Your task to perform on an android device: turn off smart reply in the gmail app Image 0: 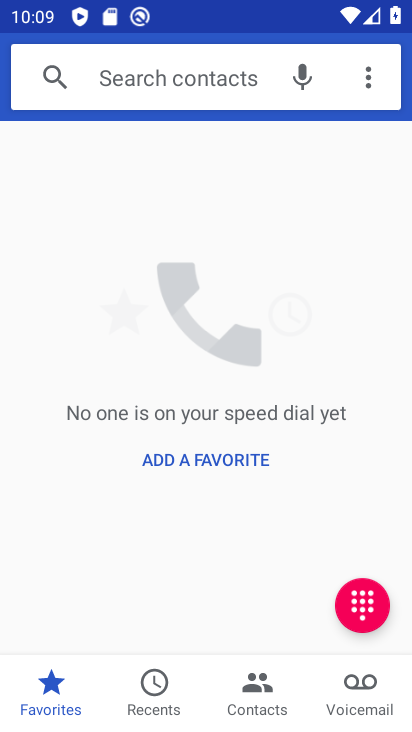
Step 0: press home button
Your task to perform on an android device: turn off smart reply in the gmail app Image 1: 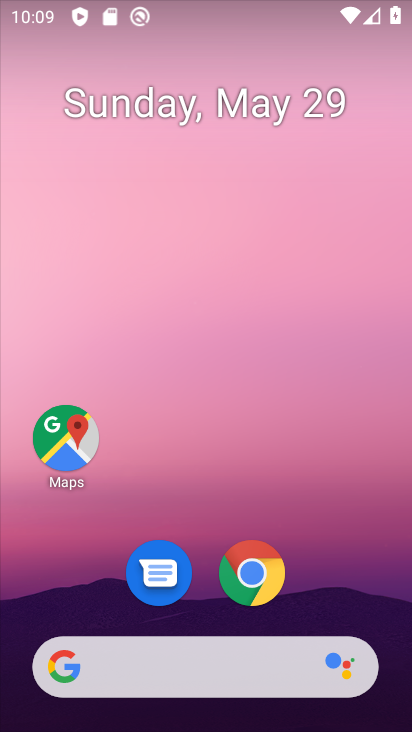
Step 1: drag from (53, 617) to (198, 166)
Your task to perform on an android device: turn off smart reply in the gmail app Image 2: 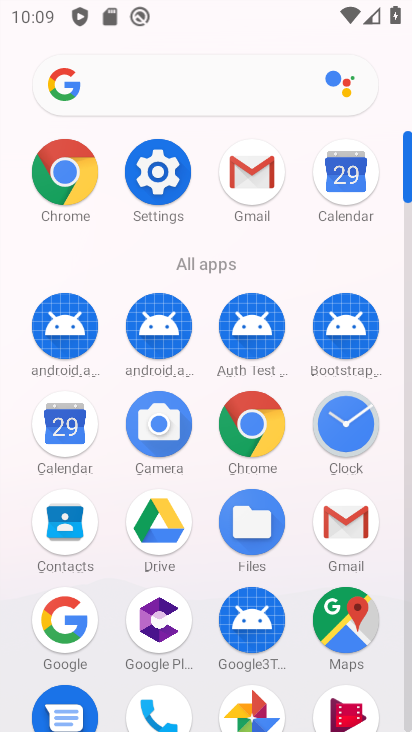
Step 2: drag from (169, 624) to (230, 361)
Your task to perform on an android device: turn off smart reply in the gmail app Image 3: 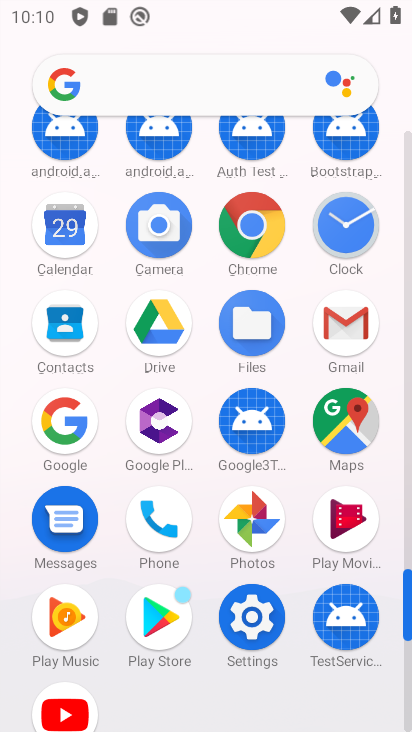
Step 3: click (326, 326)
Your task to perform on an android device: turn off smart reply in the gmail app Image 4: 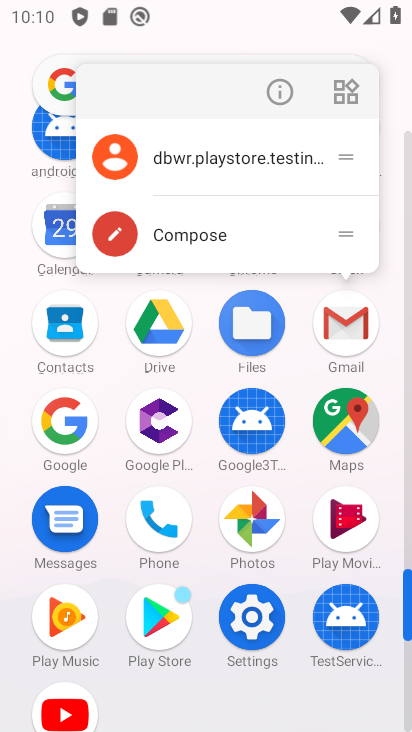
Step 4: click (353, 332)
Your task to perform on an android device: turn off smart reply in the gmail app Image 5: 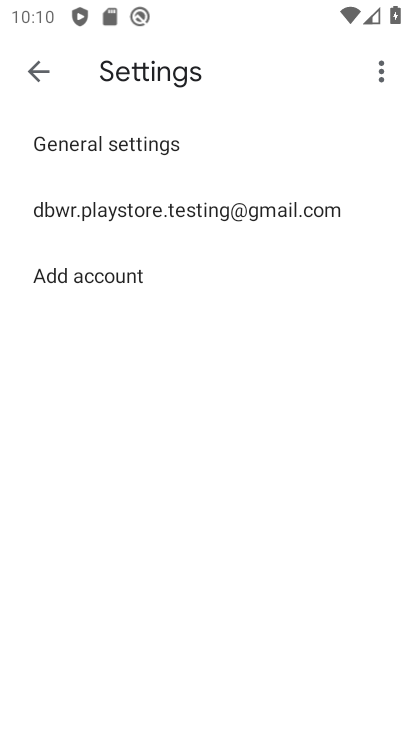
Step 5: click (247, 221)
Your task to perform on an android device: turn off smart reply in the gmail app Image 6: 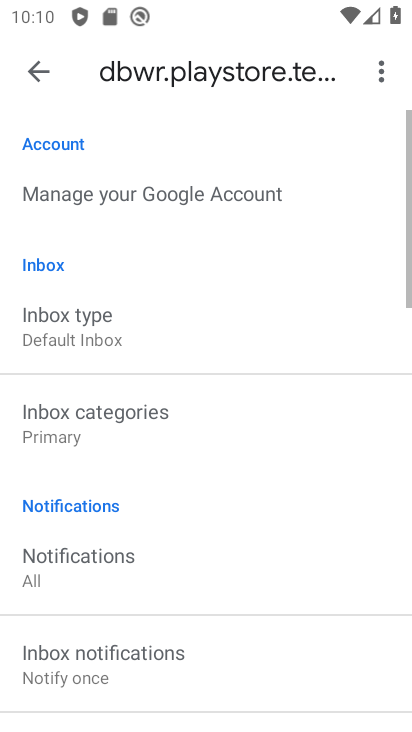
Step 6: drag from (179, 676) to (285, 146)
Your task to perform on an android device: turn off smart reply in the gmail app Image 7: 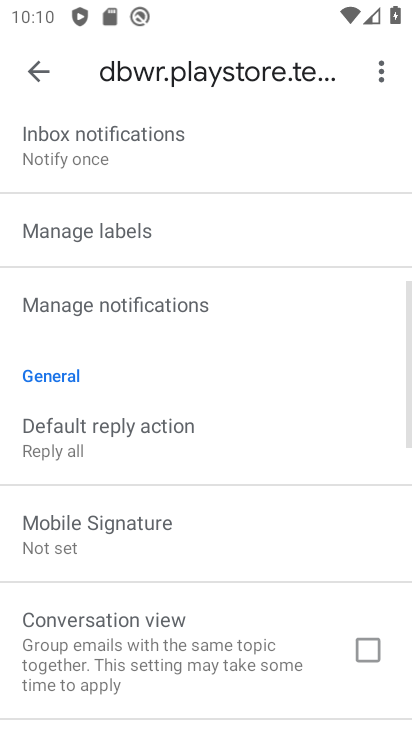
Step 7: drag from (139, 565) to (297, 90)
Your task to perform on an android device: turn off smart reply in the gmail app Image 8: 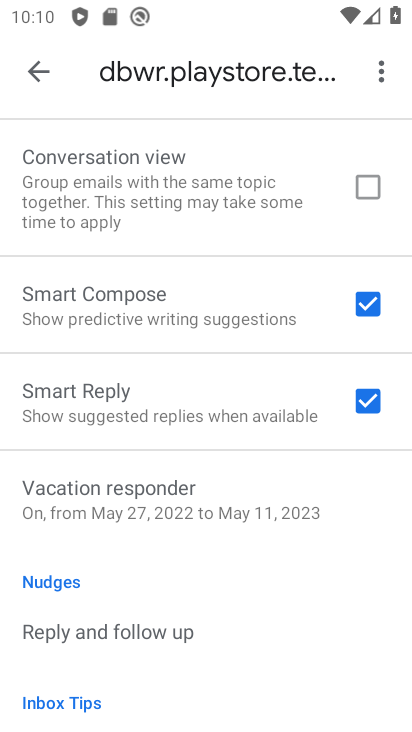
Step 8: click (375, 407)
Your task to perform on an android device: turn off smart reply in the gmail app Image 9: 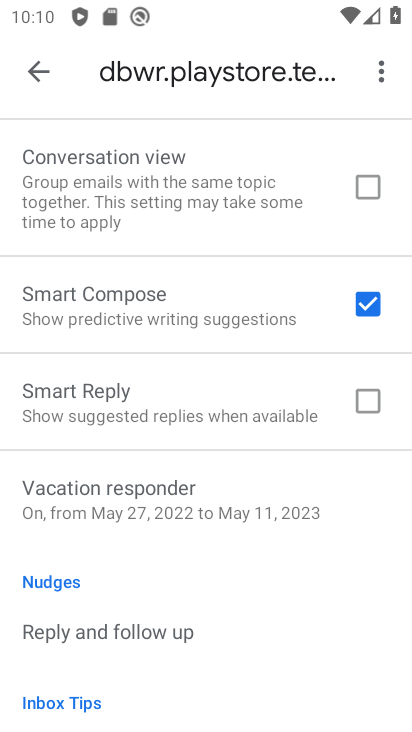
Step 9: task complete